Your task to perform on an android device: Empty the shopping cart on walmart. Search for razer deathadder on walmart, select the first entry, add it to the cart, then select checkout. Image 0: 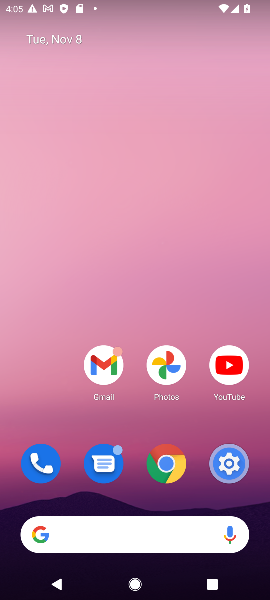
Step 0: click (165, 457)
Your task to perform on an android device: Empty the shopping cart on walmart. Search for razer deathadder on walmart, select the first entry, add it to the cart, then select checkout. Image 1: 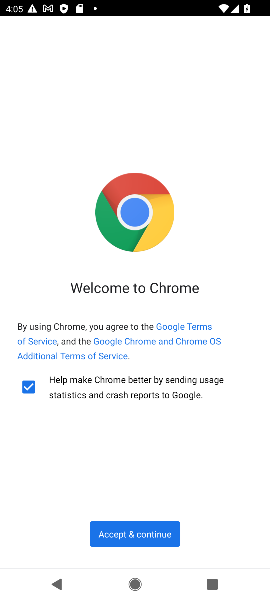
Step 1: click (156, 527)
Your task to perform on an android device: Empty the shopping cart on walmart. Search for razer deathadder on walmart, select the first entry, add it to the cart, then select checkout. Image 2: 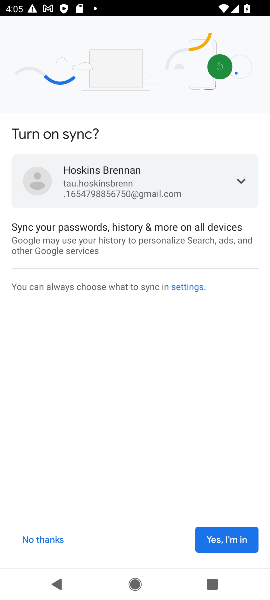
Step 2: click (237, 538)
Your task to perform on an android device: Empty the shopping cart on walmart. Search for razer deathadder on walmart, select the first entry, add it to the cart, then select checkout. Image 3: 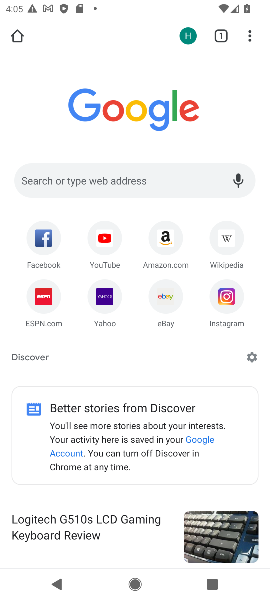
Step 3: click (110, 173)
Your task to perform on an android device: Empty the shopping cart on walmart. Search for razer deathadder on walmart, select the first entry, add it to the cart, then select checkout. Image 4: 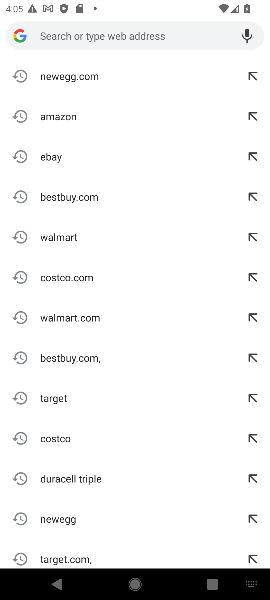
Step 4: click (74, 313)
Your task to perform on an android device: Empty the shopping cart on walmart. Search for razer deathadder on walmart, select the first entry, add it to the cart, then select checkout. Image 5: 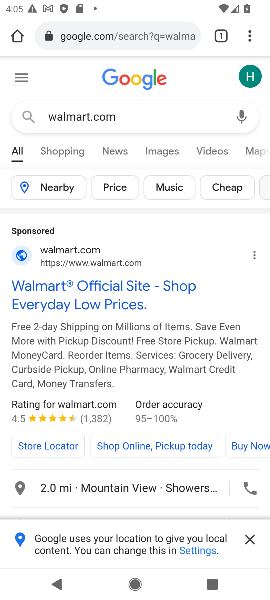
Step 5: click (106, 286)
Your task to perform on an android device: Empty the shopping cart on walmart. Search for razer deathadder on walmart, select the first entry, add it to the cart, then select checkout. Image 6: 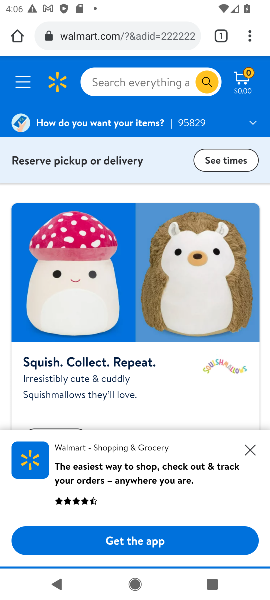
Step 6: click (240, 83)
Your task to perform on an android device: Empty the shopping cart on walmart. Search for razer deathadder on walmart, select the first entry, add it to the cart, then select checkout. Image 7: 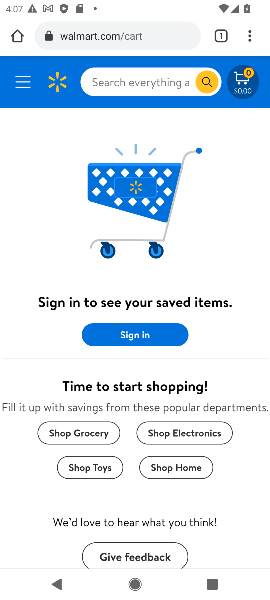
Step 7: click (143, 77)
Your task to perform on an android device: Empty the shopping cart on walmart. Search for razer deathadder on walmart, select the first entry, add it to the cart, then select checkout. Image 8: 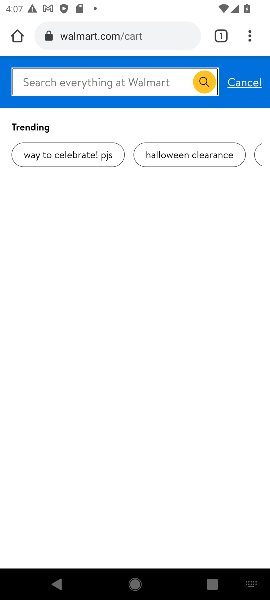
Step 8: type "razer deathadder "
Your task to perform on an android device: Empty the shopping cart on walmart. Search for razer deathadder on walmart, select the first entry, add it to the cart, then select checkout. Image 9: 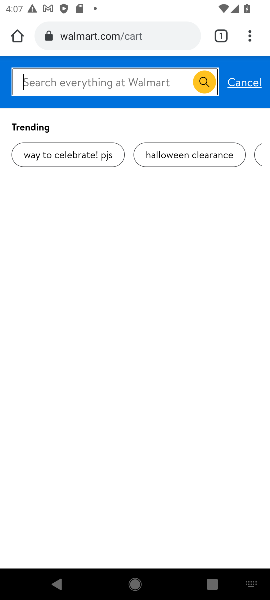
Step 9: type ""
Your task to perform on an android device: Empty the shopping cart on walmart. Search for razer deathadder on walmart, select the first entry, add it to the cart, then select checkout. Image 10: 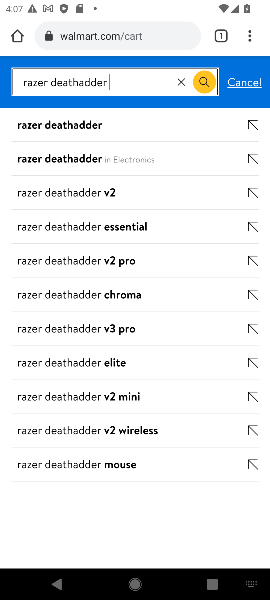
Step 10: click (34, 128)
Your task to perform on an android device: Empty the shopping cart on walmart. Search for razer deathadder on walmart, select the first entry, add it to the cart, then select checkout. Image 11: 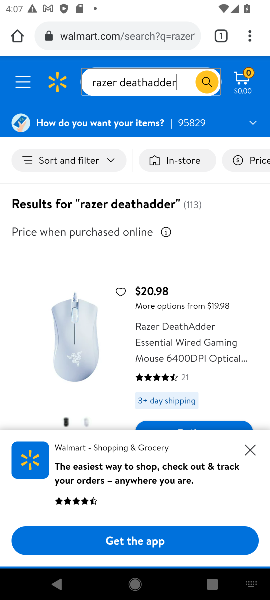
Step 11: click (254, 449)
Your task to perform on an android device: Empty the shopping cart on walmart. Search for razer deathadder on walmart, select the first entry, add it to the cart, then select checkout. Image 12: 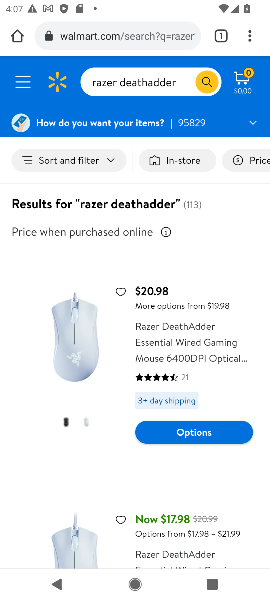
Step 12: click (182, 431)
Your task to perform on an android device: Empty the shopping cart on walmart. Search for razer deathadder on walmart, select the first entry, add it to the cart, then select checkout. Image 13: 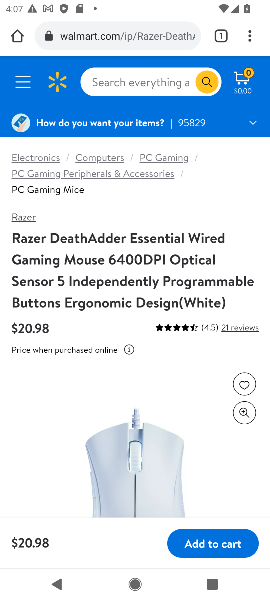
Step 13: click (221, 538)
Your task to perform on an android device: Empty the shopping cart on walmart. Search for razer deathadder on walmart, select the first entry, add it to the cart, then select checkout. Image 14: 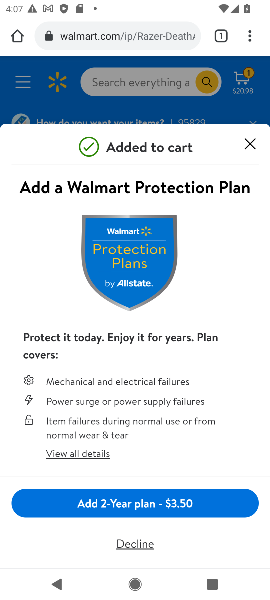
Step 14: click (247, 149)
Your task to perform on an android device: Empty the shopping cart on walmart. Search for razer deathadder on walmart, select the first entry, add it to the cart, then select checkout. Image 15: 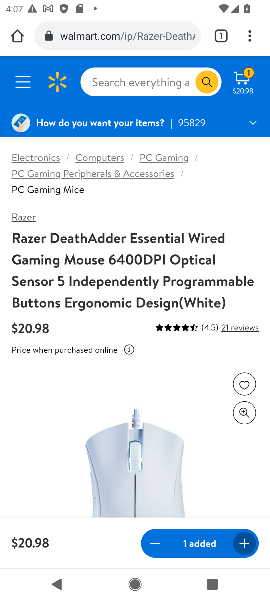
Step 15: click (246, 71)
Your task to perform on an android device: Empty the shopping cart on walmart. Search for razer deathadder on walmart, select the first entry, add it to the cart, then select checkout. Image 16: 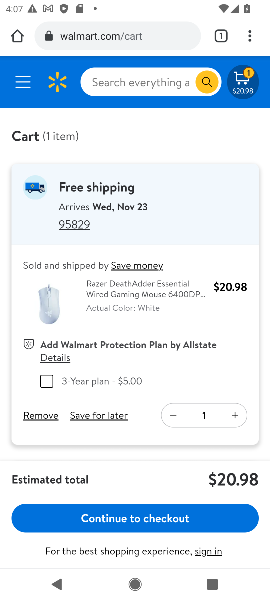
Step 16: click (182, 519)
Your task to perform on an android device: Empty the shopping cart on walmart. Search for razer deathadder on walmart, select the first entry, add it to the cart, then select checkout. Image 17: 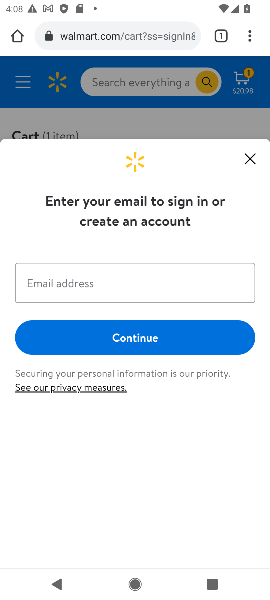
Step 17: task complete